Your task to perform on an android device: turn off translation in the chrome app Image 0: 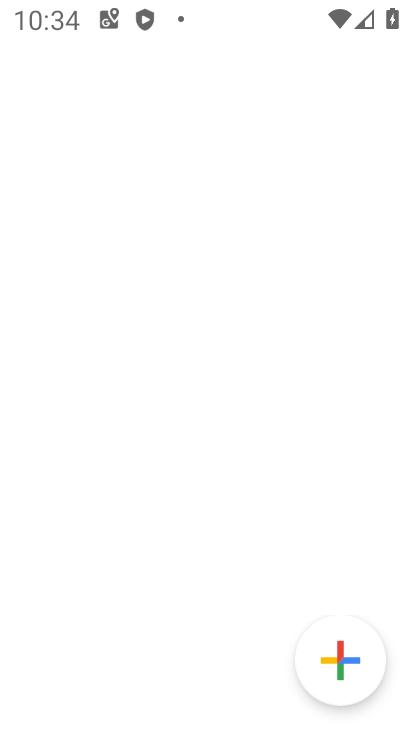
Step 0: drag from (250, 621) to (258, 491)
Your task to perform on an android device: turn off translation in the chrome app Image 1: 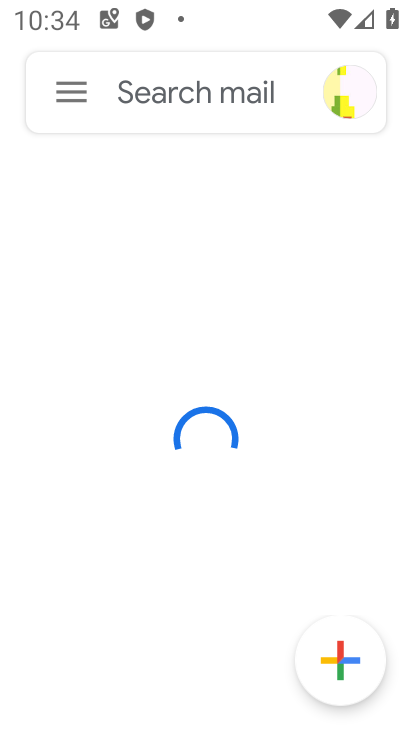
Step 1: press home button
Your task to perform on an android device: turn off translation in the chrome app Image 2: 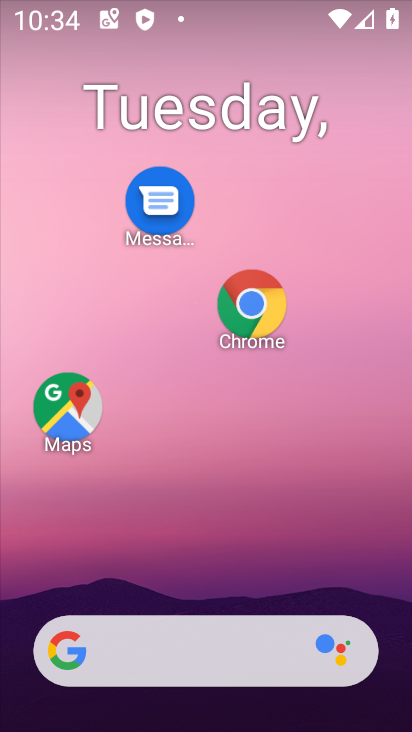
Step 2: drag from (237, 508) to (296, 67)
Your task to perform on an android device: turn off translation in the chrome app Image 3: 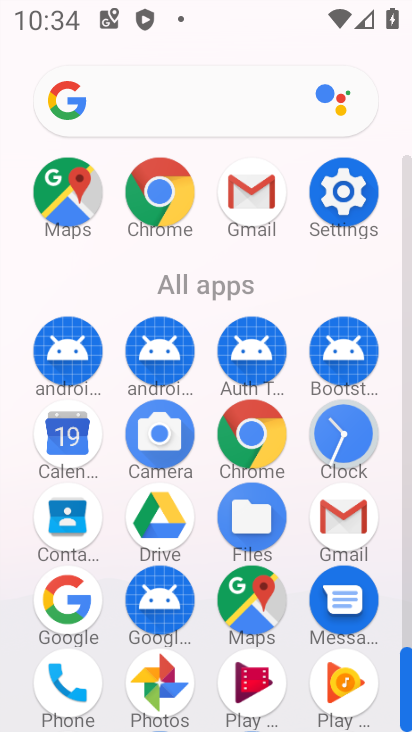
Step 3: click (154, 188)
Your task to perform on an android device: turn off translation in the chrome app Image 4: 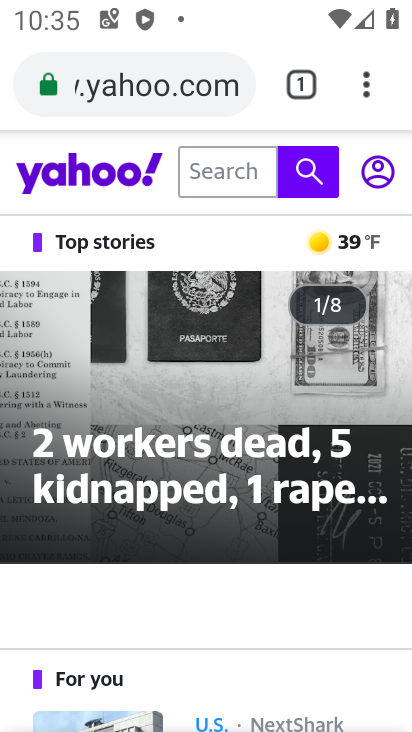
Step 4: click (367, 83)
Your task to perform on an android device: turn off translation in the chrome app Image 5: 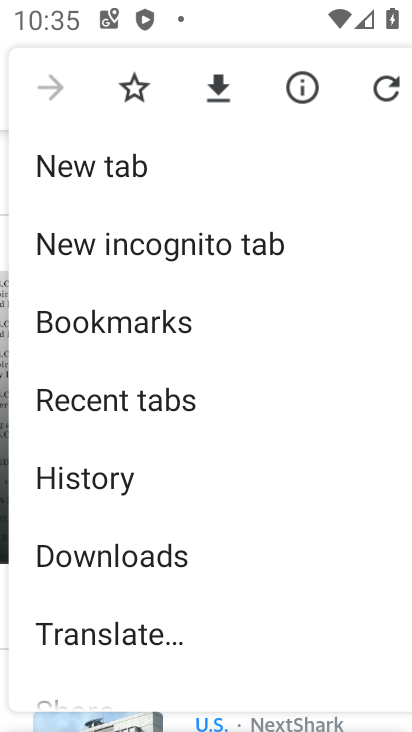
Step 5: drag from (129, 582) to (198, 167)
Your task to perform on an android device: turn off translation in the chrome app Image 6: 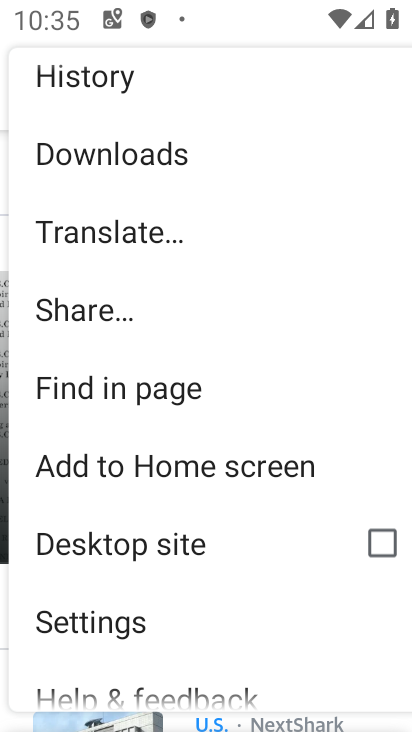
Step 6: click (144, 625)
Your task to perform on an android device: turn off translation in the chrome app Image 7: 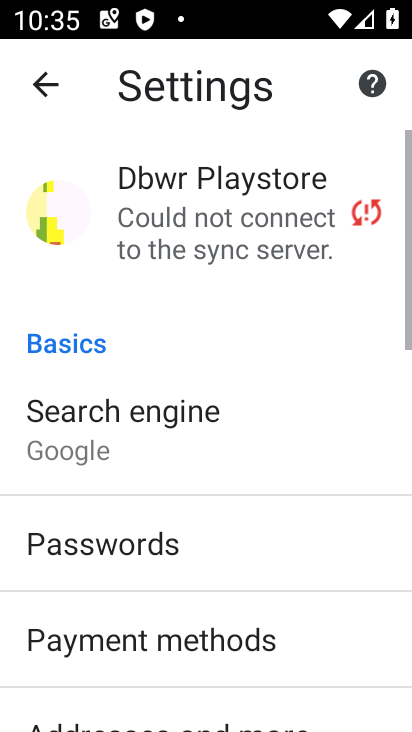
Step 7: drag from (173, 632) to (256, 231)
Your task to perform on an android device: turn off translation in the chrome app Image 8: 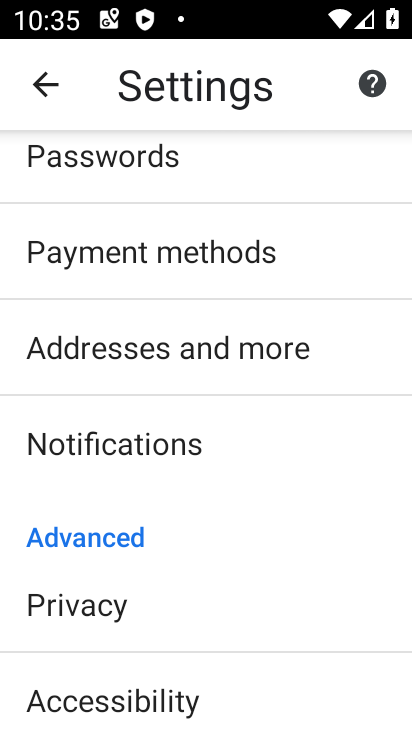
Step 8: drag from (174, 651) to (237, 290)
Your task to perform on an android device: turn off translation in the chrome app Image 9: 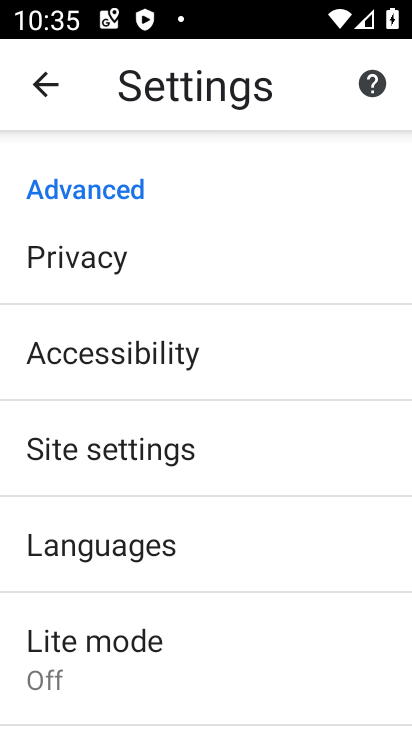
Step 9: click (162, 535)
Your task to perform on an android device: turn off translation in the chrome app Image 10: 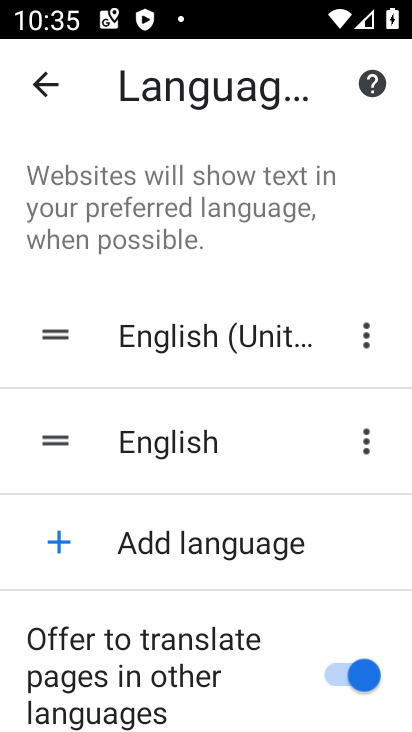
Step 10: click (317, 679)
Your task to perform on an android device: turn off translation in the chrome app Image 11: 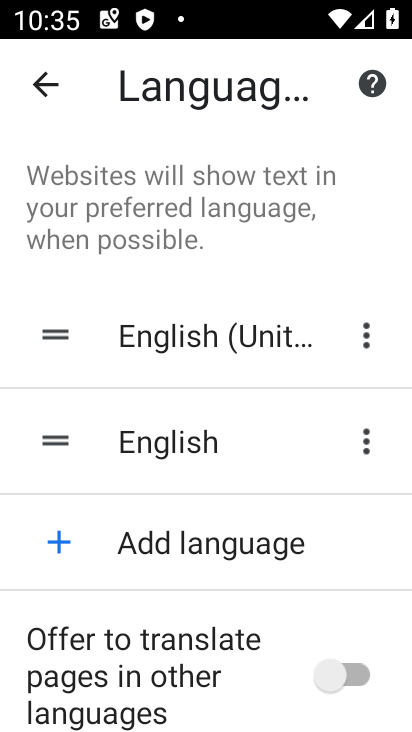
Step 11: task complete